Your task to perform on an android device: check android version Image 0: 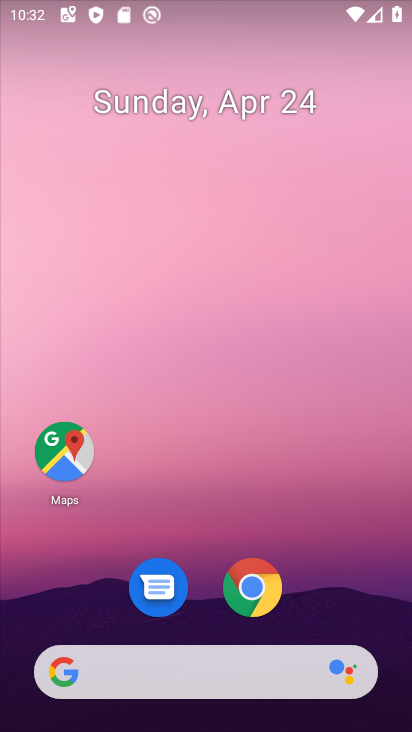
Step 0: drag from (375, 599) to (340, 156)
Your task to perform on an android device: check android version Image 1: 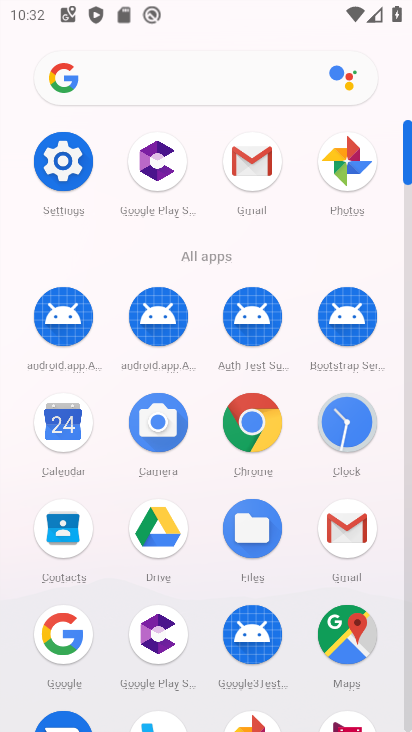
Step 1: drag from (208, 586) to (196, 267)
Your task to perform on an android device: check android version Image 2: 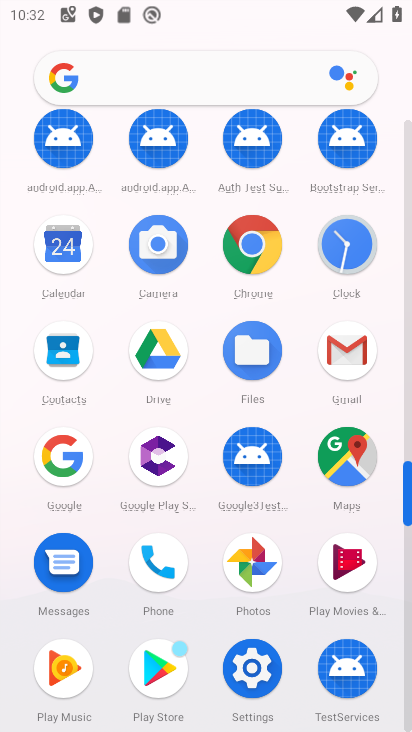
Step 2: click (257, 675)
Your task to perform on an android device: check android version Image 3: 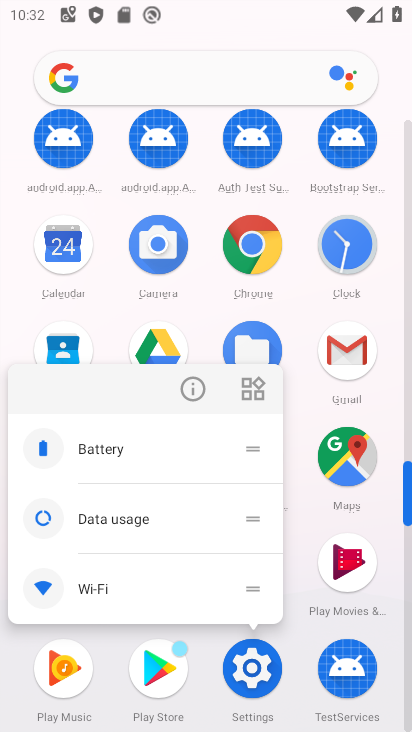
Step 3: click (251, 672)
Your task to perform on an android device: check android version Image 4: 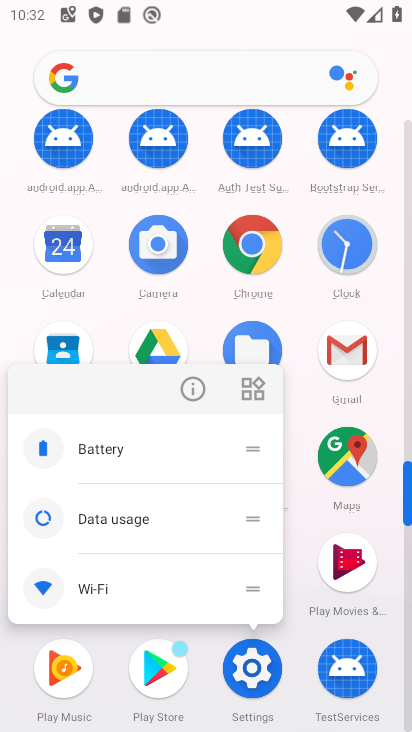
Step 4: click (263, 683)
Your task to perform on an android device: check android version Image 5: 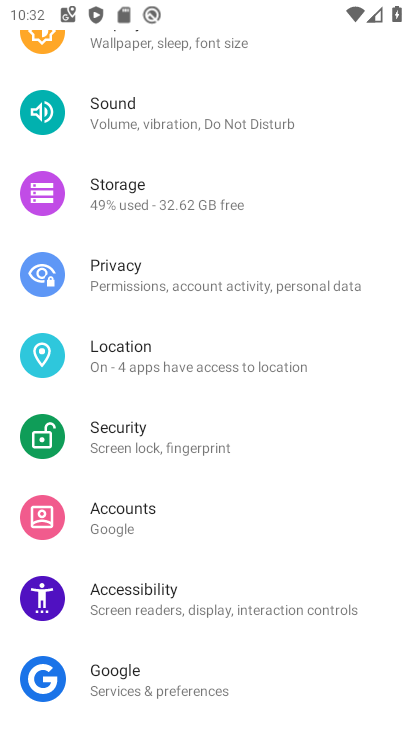
Step 5: drag from (311, 632) to (313, 196)
Your task to perform on an android device: check android version Image 6: 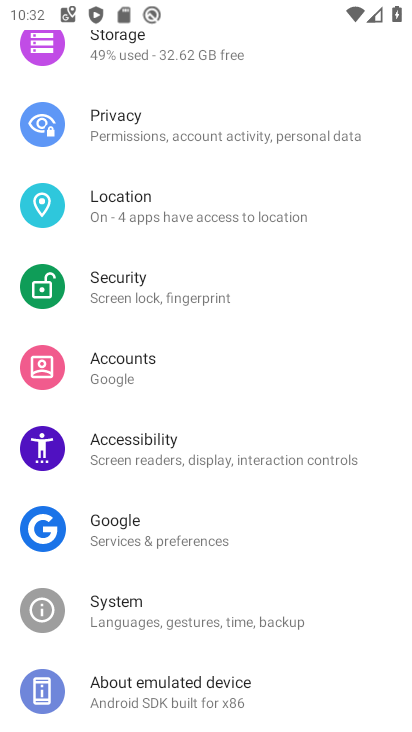
Step 6: click (222, 685)
Your task to perform on an android device: check android version Image 7: 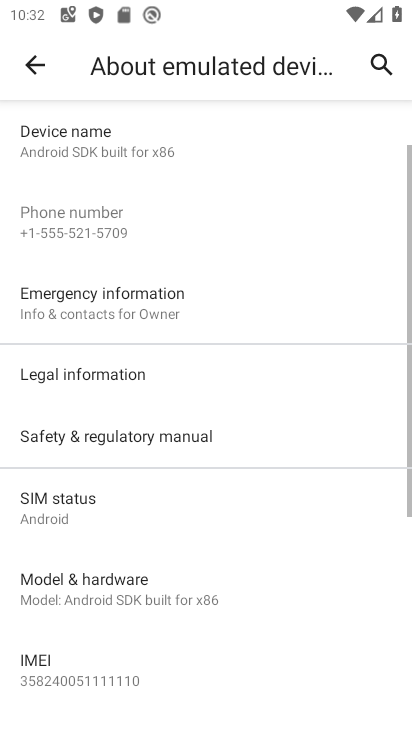
Step 7: drag from (322, 629) to (294, 224)
Your task to perform on an android device: check android version Image 8: 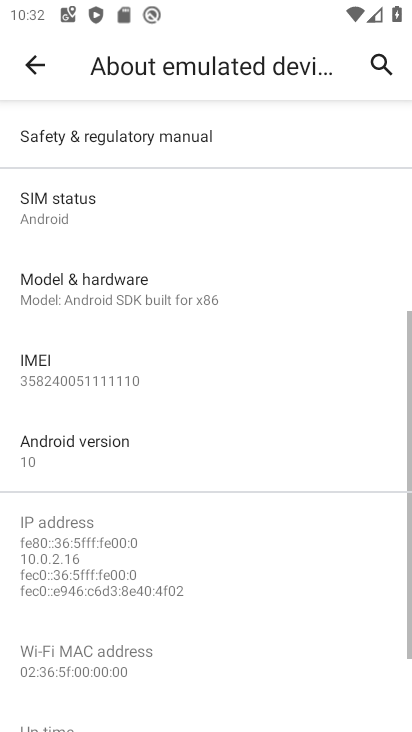
Step 8: drag from (253, 589) to (235, 293)
Your task to perform on an android device: check android version Image 9: 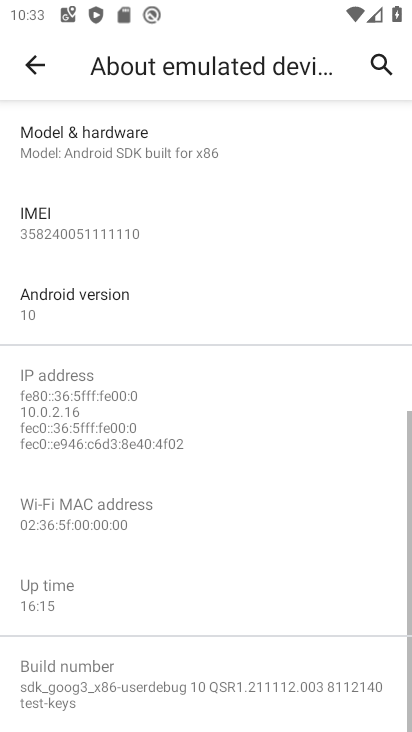
Step 9: click (68, 299)
Your task to perform on an android device: check android version Image 10: 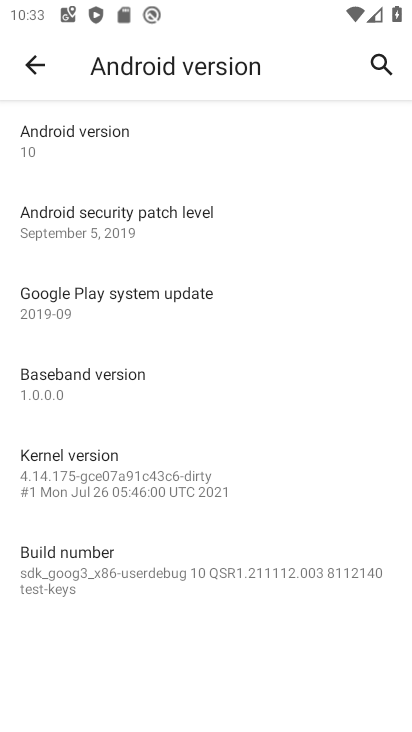
Step 10: task complete